Your task to perform on an android device: toggle data saver in the chrome app Image 0: 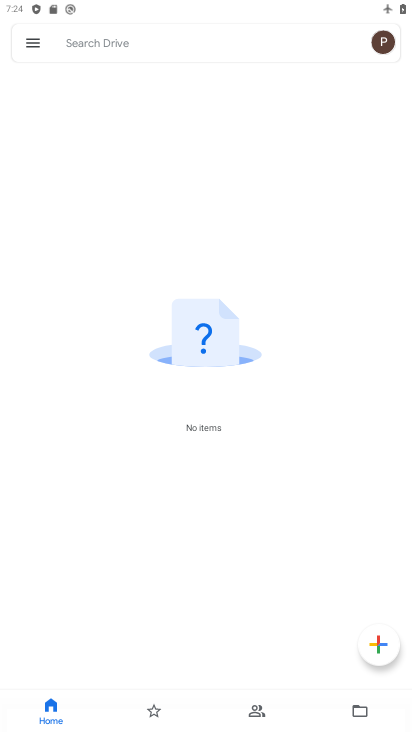
Step 0: press home button
Your task to perform on an android device: toggle data saver in the chrome app Image 1: 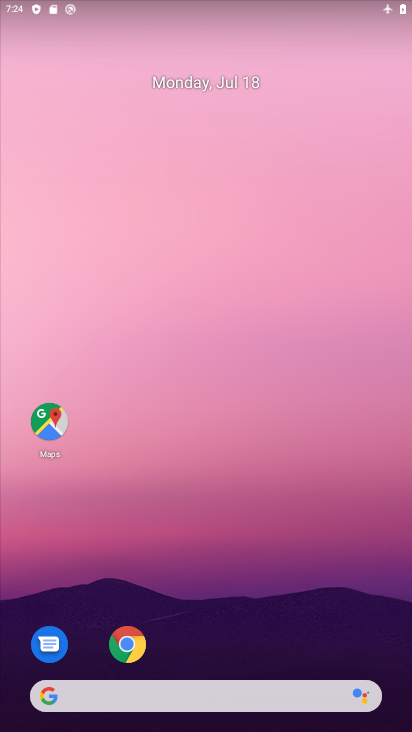
Step 1: drag from (362, 619) to (361, 144)
Your task to perform on an android device: toggle data saver in the chrome app Image 2: 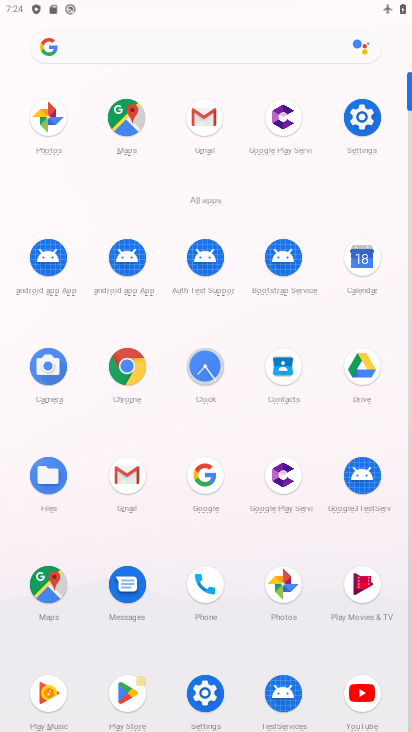
Step 2: click (123, 370)
Your task to perform on an android device: toggle data saver in the chrome app Image 3: 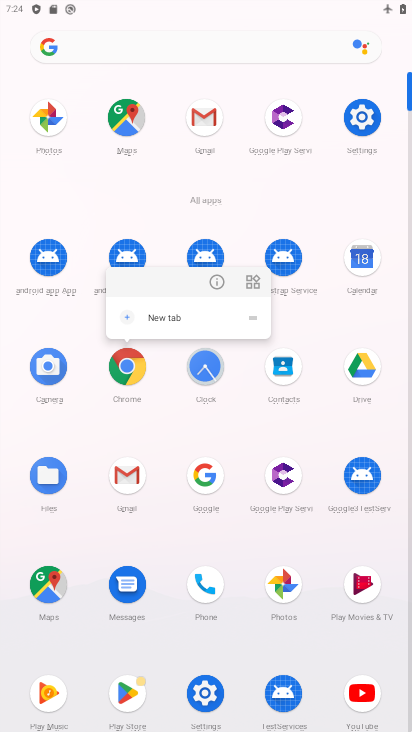
Step 3: click (137, 381)
Your task to perform on an android device: toggle data saver in the chrome app Image 4: 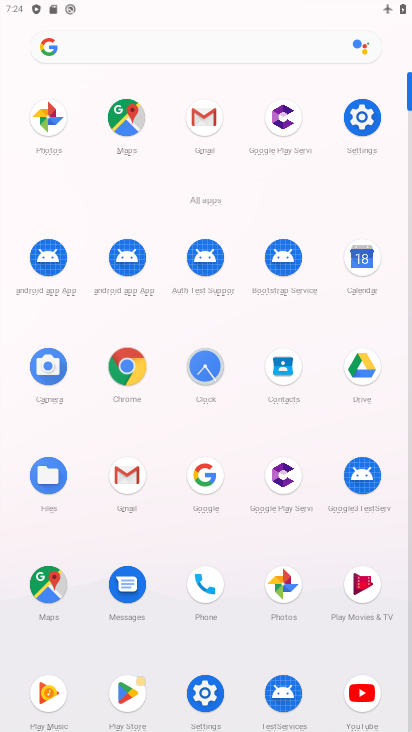
Step 4: click (129, 369)
Your task to perform on an android device: toggle data saver in the chrome app Image 5: 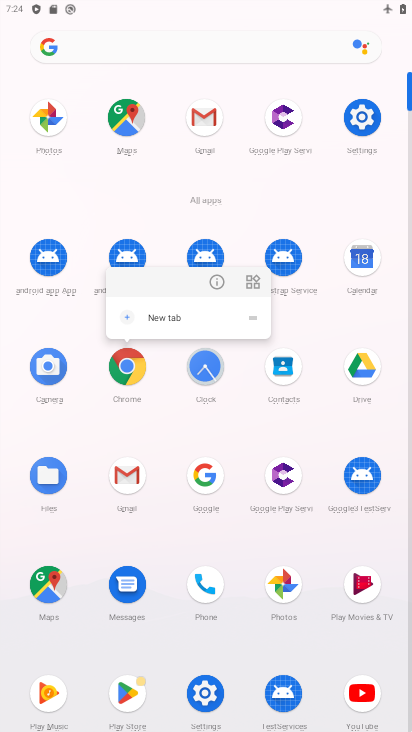
Step 5: click (116, 369)
Your task to perform on an android device: toggle data saver in the chrome app Image 6: 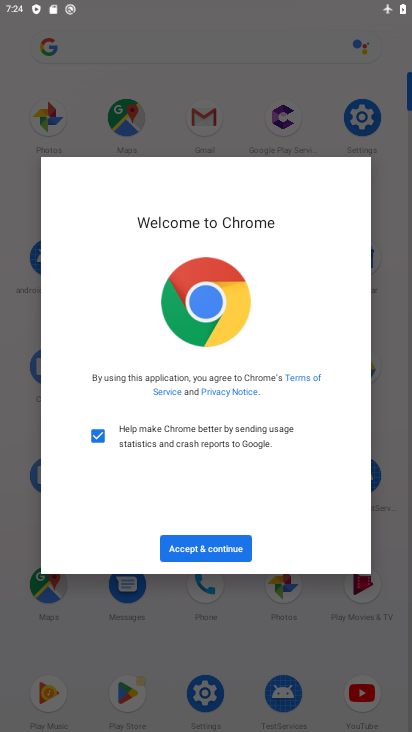
Step 6: click (218, 543)
Your task to perform on an android device: toggle data saver in the chrome app Image 7: 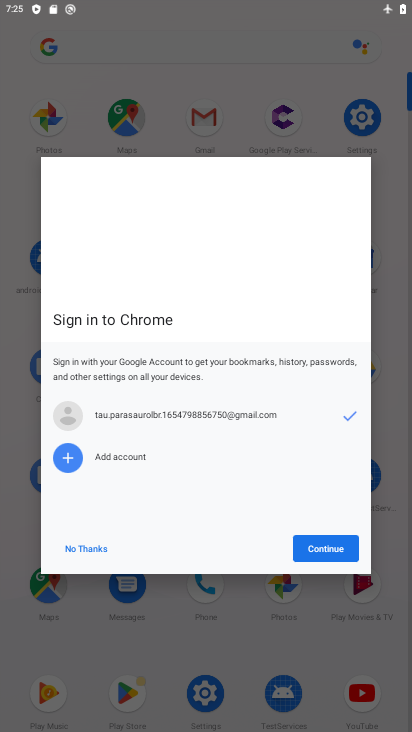
Step 7: click (329, 542)
Your task to perform on an android device: toggle data saver in the chrome app Image 8: 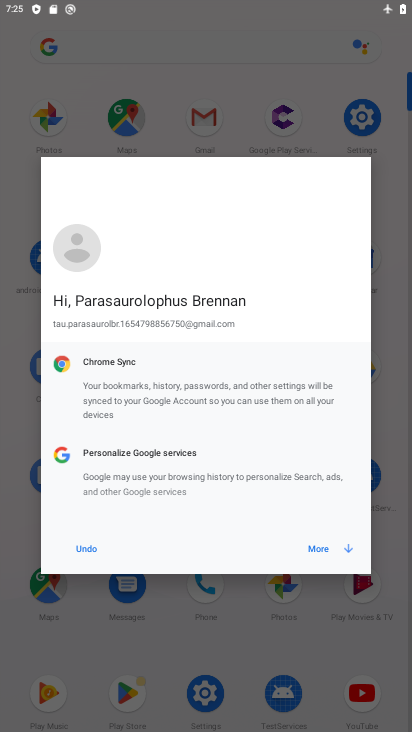
Step 8: click (314, 551)
Your task to perform on an android device: toggle data saver in the chrome app Image 9: 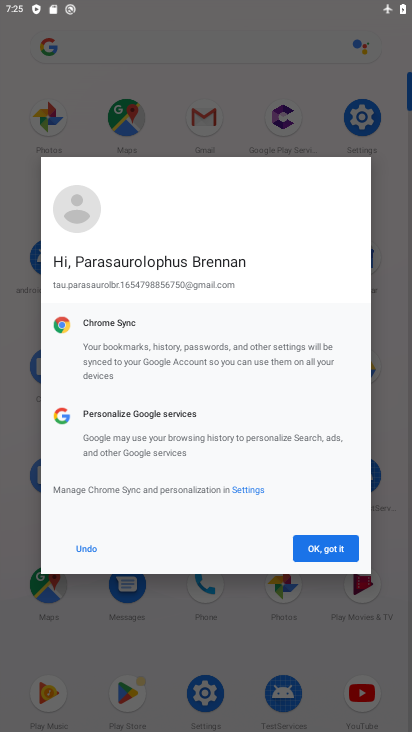
Step 9: click (344, 547)
Your task to perform on an android device: toggle data saver in the chrome app Image 10: 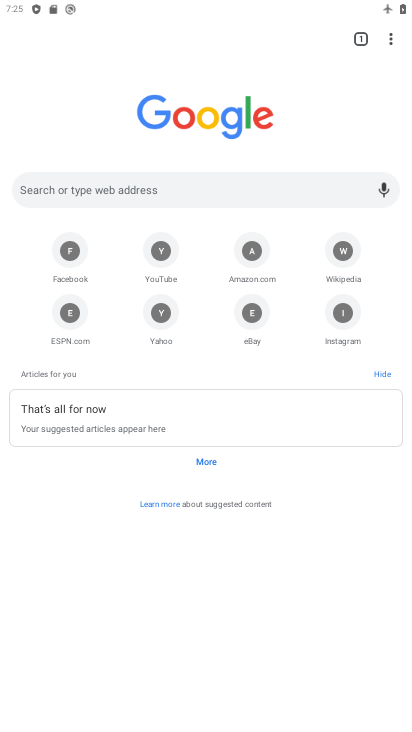
Step 10: click (392, 42)
Your task to perform on an android device: toggle data saver in the chrome app Image 11: 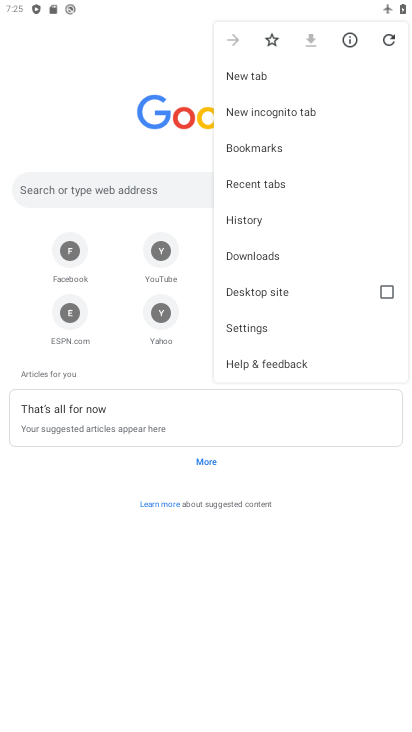
Step 11: click (258, 331)
Your task to perform on an android device: toggle data saver in the chrome app Image 12: 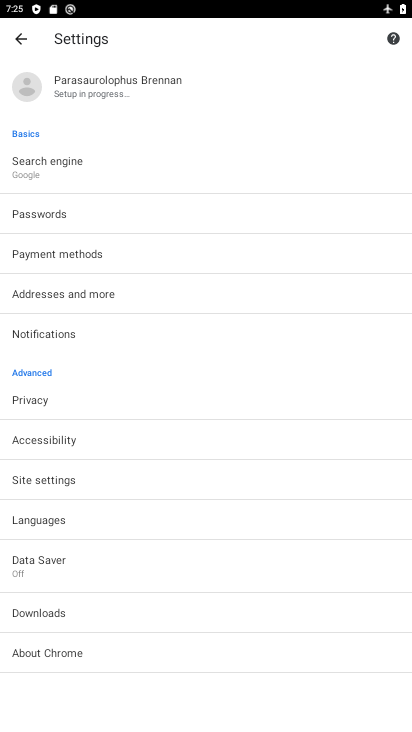
Step 12: click (249, 571)
Your task to perform on an android device: toggle data saver in the chrome app Image 13: 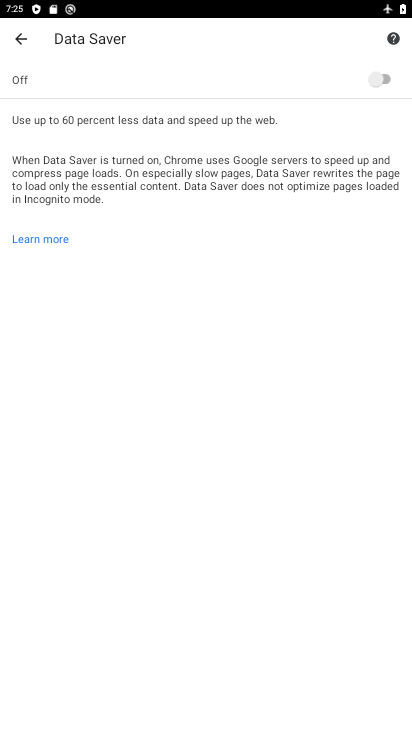
Step 13: click (370, 83)
Your task to perform on an android device: toggle data saver in the chrome app Image 14: 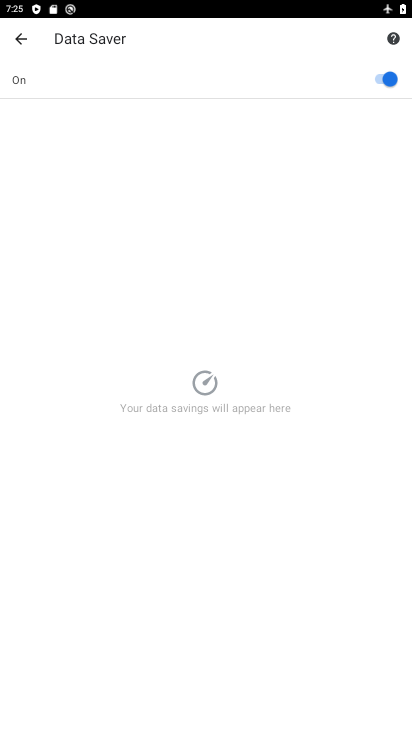
Step 14: task complete